Your task to perform on an android device: Go to wifi settings Image 0: 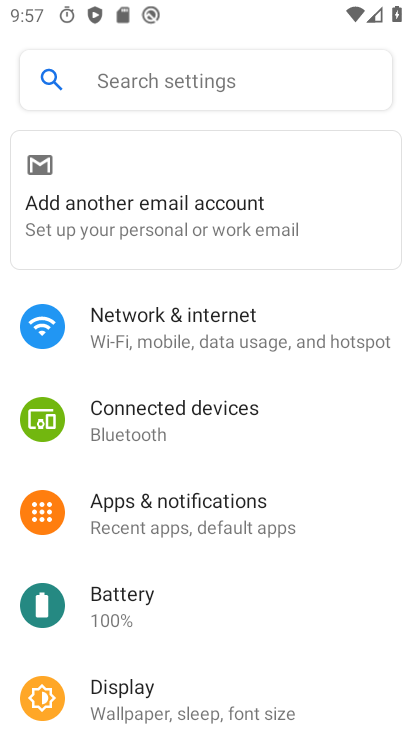
Step 0: click (166, 343)
Your task to perform on an android device: Go to wifi settings Image 1: 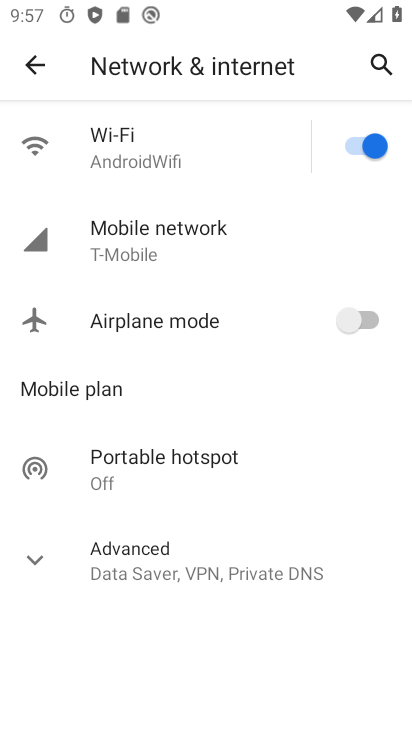
Step 1: click (113, 162)
Your task to perform on an android device: Go to wifi settings Image 2: 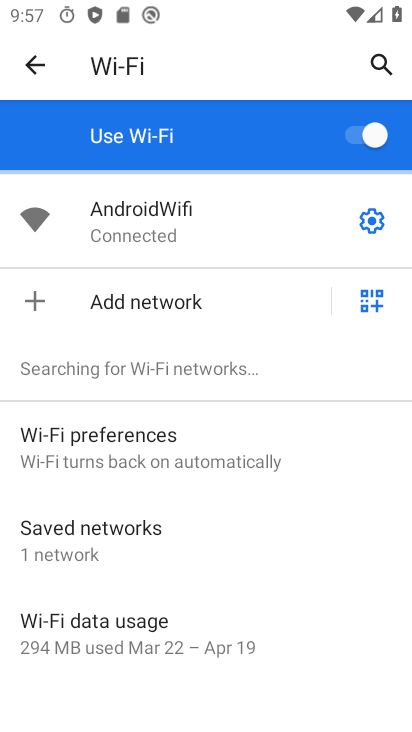
Step 2: task complete